Your task to perform on an android device: Open Chrome and go to settings Image 0: 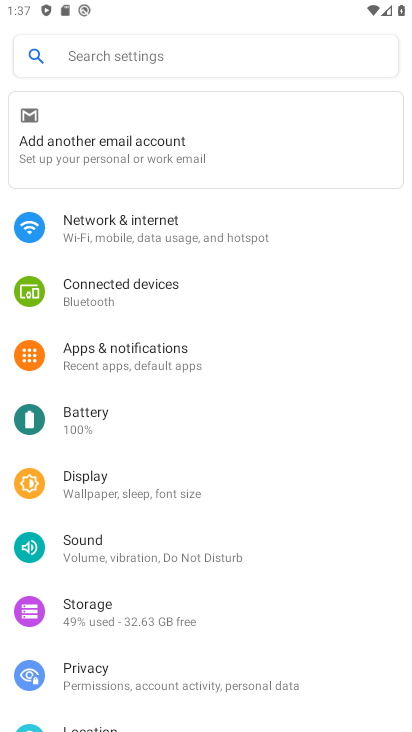
Step 0: press home button
Your task to perform on an android device: Open Chrome and go to settings Image 1: 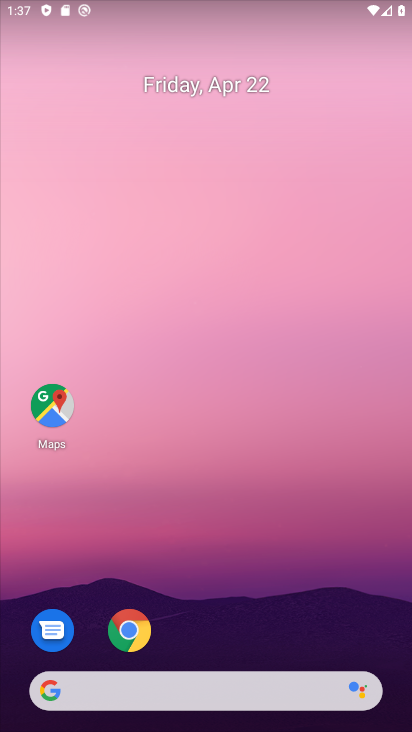
Step 1: click (130, 635)
Your task to perform on an android device: Open Chrome and go to settings Image 2: 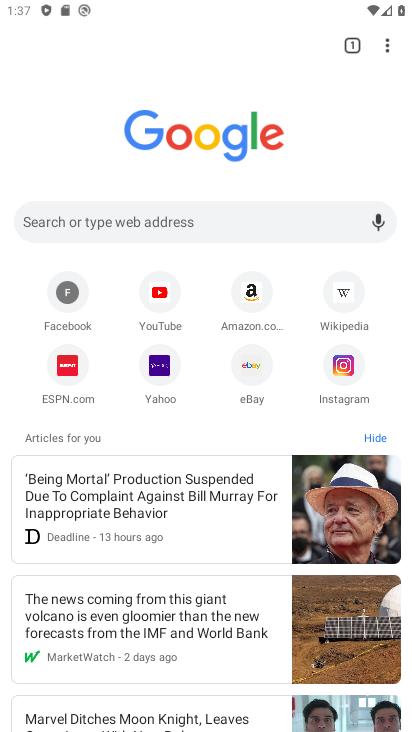
Step 2: click (386, 42)
Your task to perform on an android device: Open Chrome and go to settings Image 3: 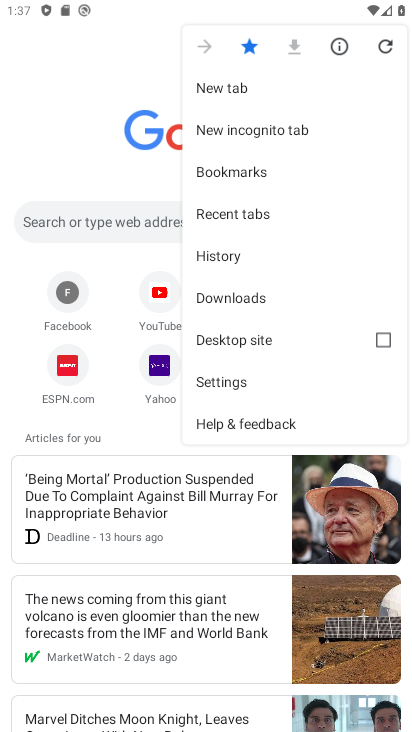
Step 3: click (251, 384)
Your task to perform on an android device: Open Chrome and go to settings Image 4: 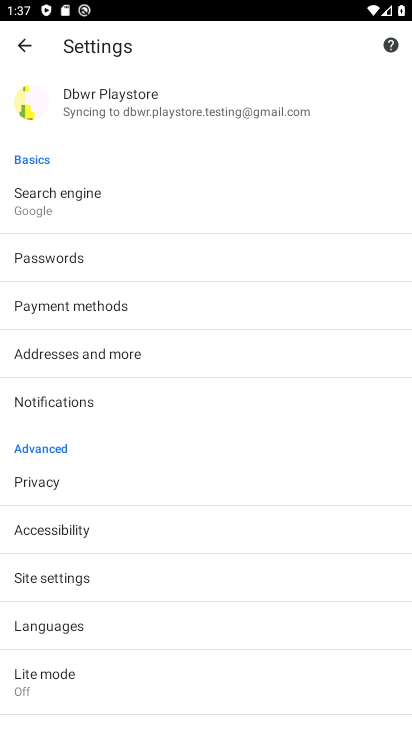
Step 4: task complete